Your task to perform on an android device: remove spam from my inbox in the gmail app Image 0: 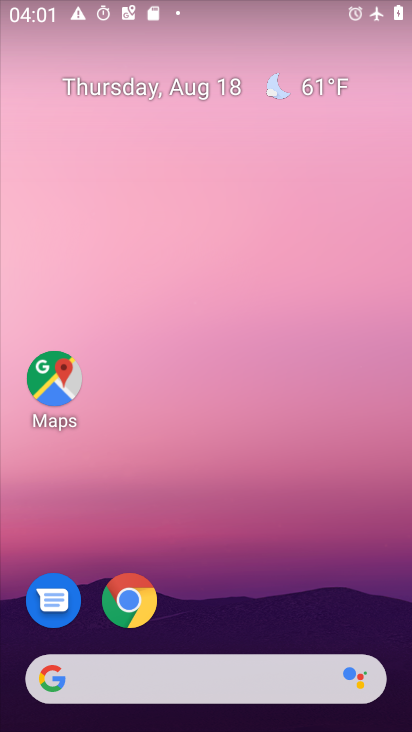
Step 0: press home button
Your task to perform on an android device: remove spam from my inbox in the gmail app Image 1: 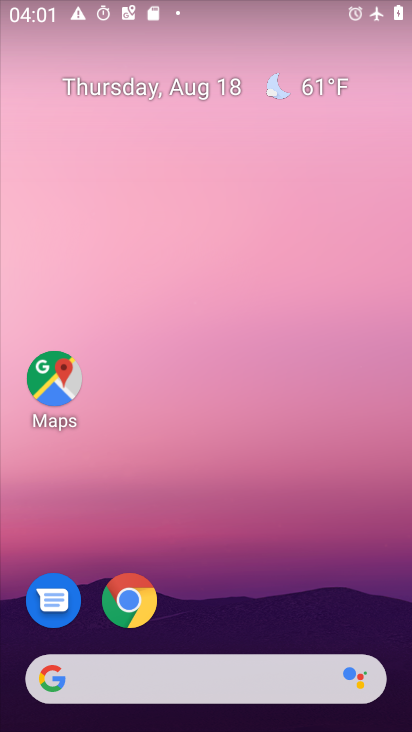
Step 1: drag from (259, 637) to (261, 202)
Your task to perform on an android device: remove spam from my inbox in the gmail app Image 2: 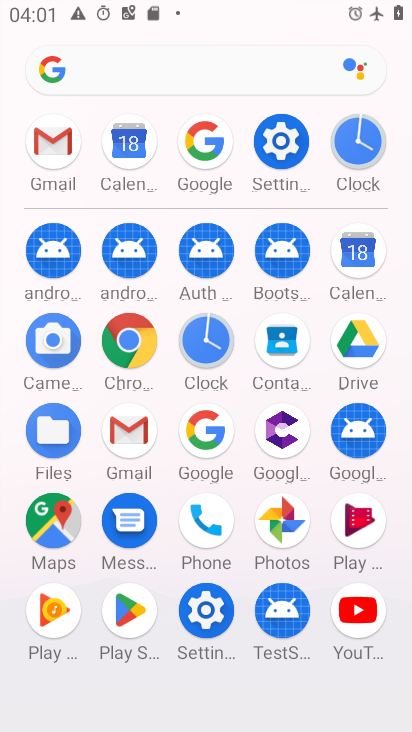
Step 2: click (47, 139)
Your task to perform on an android device: remove spam from my inbox in the gmail app Image 3: 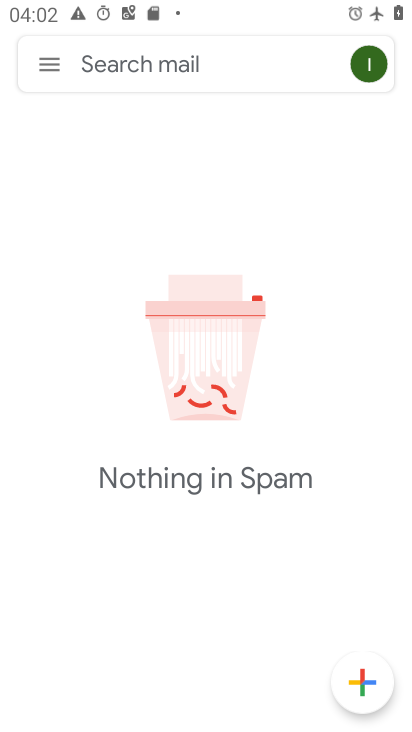
Step 3: click (53, 64)
Your task to perform on an android device: remove spam from my inbox in the gmail app Image 4: 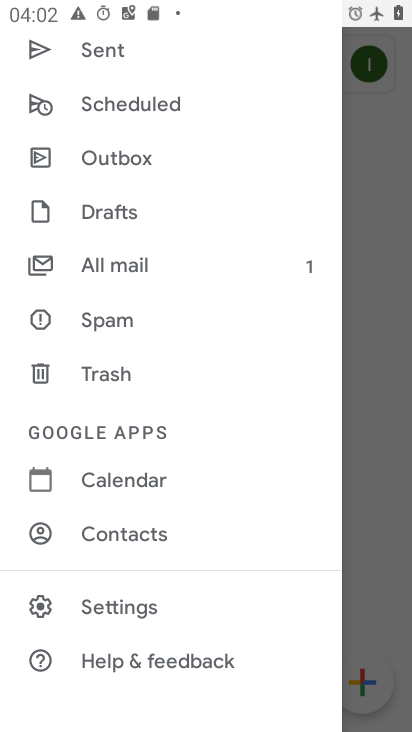
Step 4: click (113, 323)
Your task to perform on an android device: remove spam from my inbox in the gmail app Image 5: 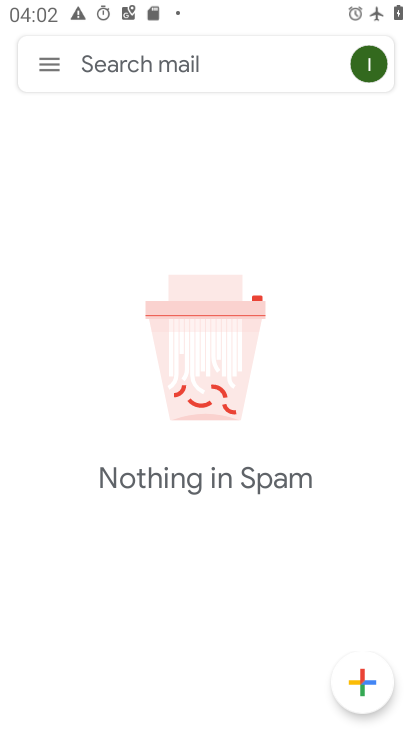
Step 5: task complete